Your task to perform on an android device: Open Google Chrome and click the shortcut for Amazon.com Image 0: 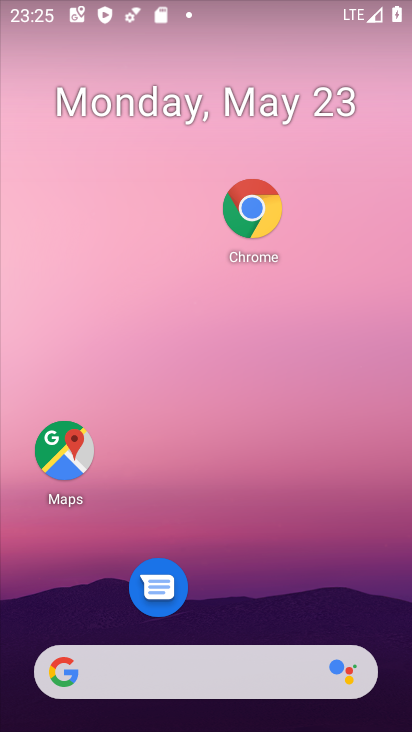
Step 0: drag from (294, 648) to (299, 148)
Your task to perform on an android device: Open Google Chrome and click the shortcut for Amazon.com Image 1: 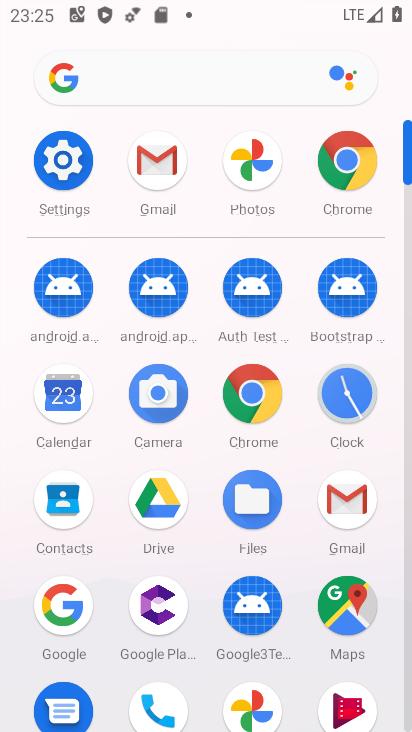
Step 1: click (331, 172)
Your task to perform on an android device: Open Google Chrome and click the shortcut for Amazon.com Image 2: 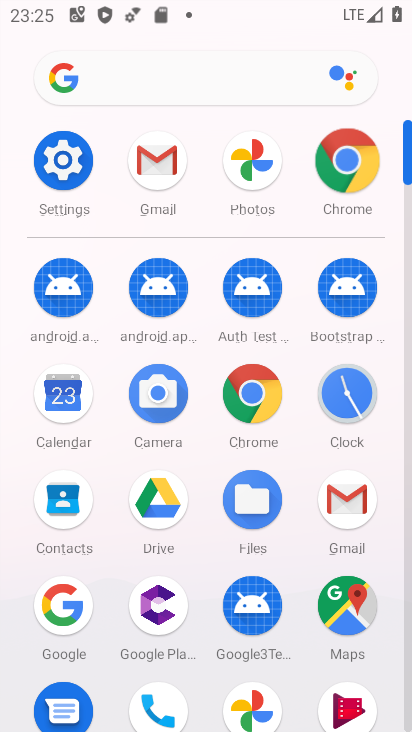
Step 2: click (331, 172)
Your task to perform on an android device: Open Google Chrome and click the shortcut for Amazon.com Image 3: 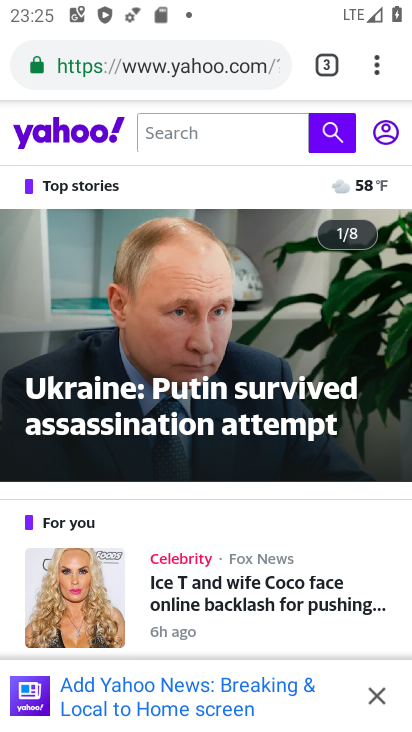
Step 3: drag from (373, 66) to (121, 126)
Your task to perform on an android device: Open Google Chrome and click the shortcut for Amazon.com Image 4: 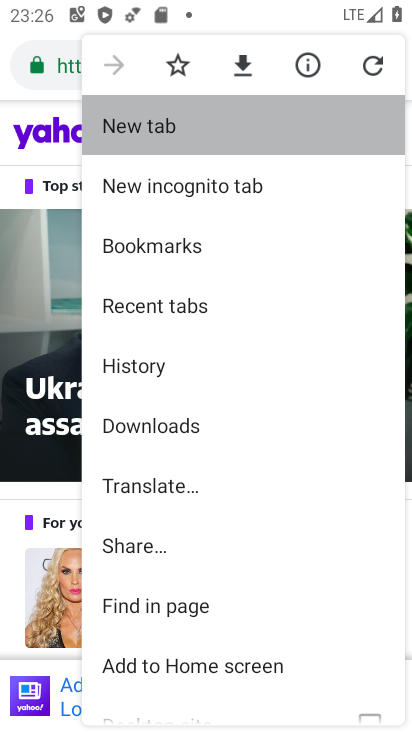
Step 4: click (123, 126)
Your task to perform on an android device: Open Google Chrome and click the shortcut for Amazon.com Image 5: 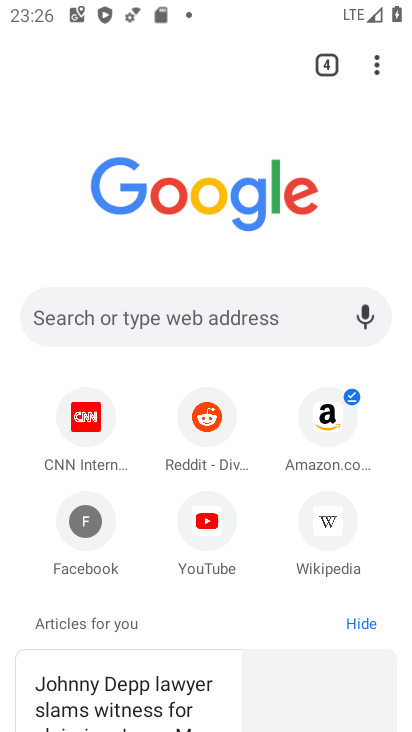
Step 5: click (330, 411)
Your task to perform on an android device: Open Google Chrome and click the shortcut for Amazon.com Image 6: 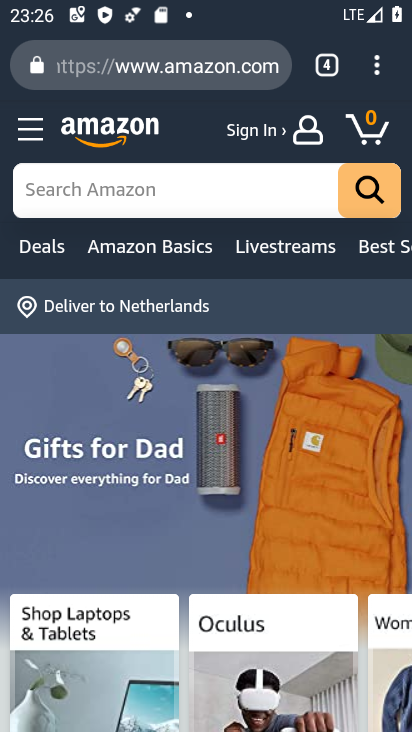
Step 6: task complete